Your task to perform on an android device: find snoozed emails in the gmail app Image 0: 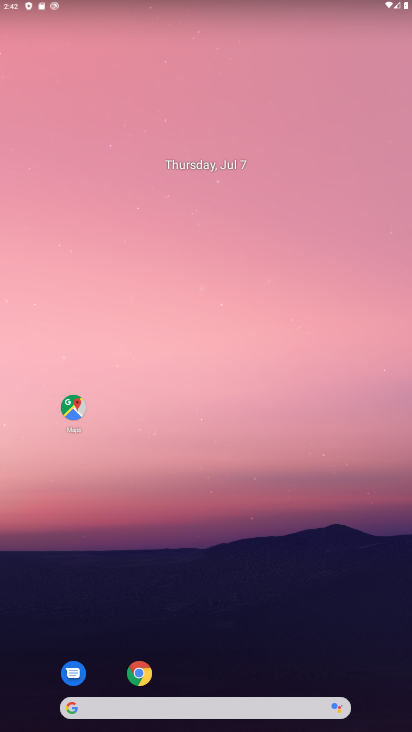
Step 0: drag from (216, 674) to (228, 242)
Your task to perform on an android device: find snoozed emails in the gmail app Image 1: 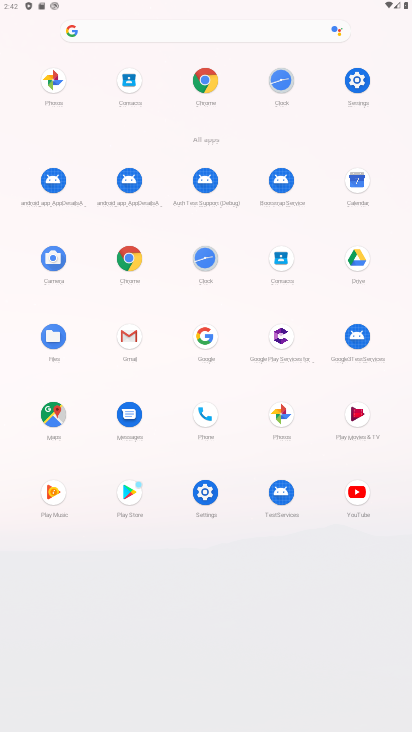
Step 1: click (124, 337)
Your task to perform on an android device: find snoozed emails in the gmail app Image 2: 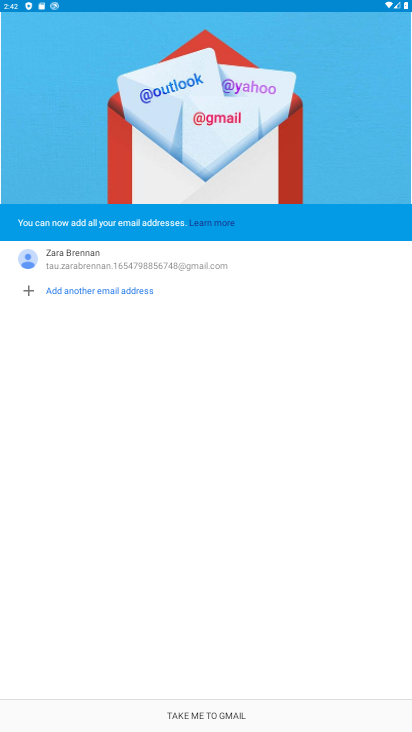
Step 2: click (235, 705)
Your task to perform on an android device: find snoozed emails in the gmail app Image 3: 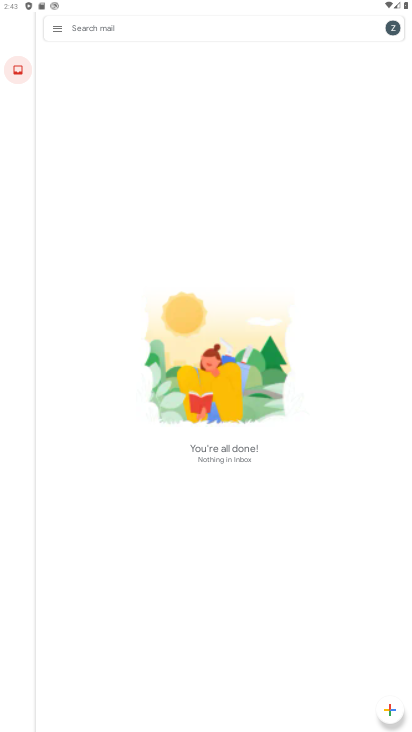
Step 3: click (59, 31)
Your task to perform on an android device: find snoozed emails in the gmail app Image 4: 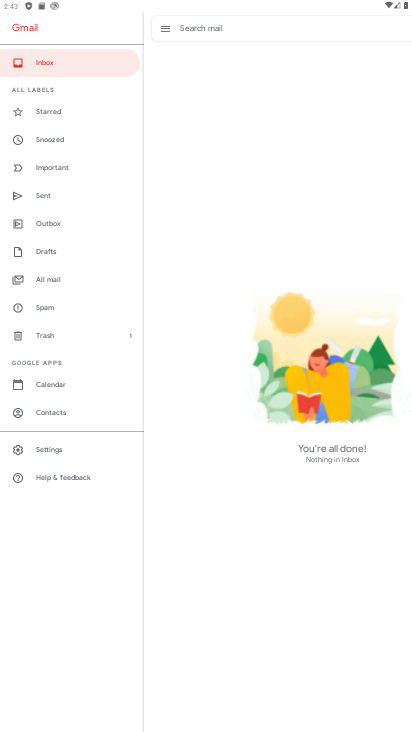
Step 4: click (71, 136)
Your task to perform on an android device: find snoozed emails in the gmail app Image 5: 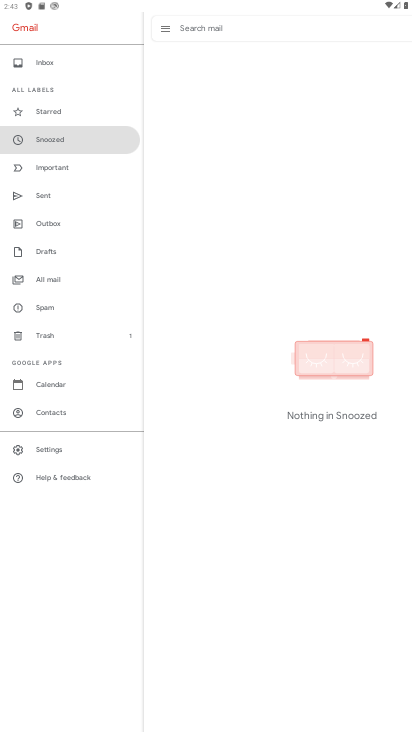
Step 5: task complete